Your task to perform on an android device: stop showing notifications on the lock screen Image 0: 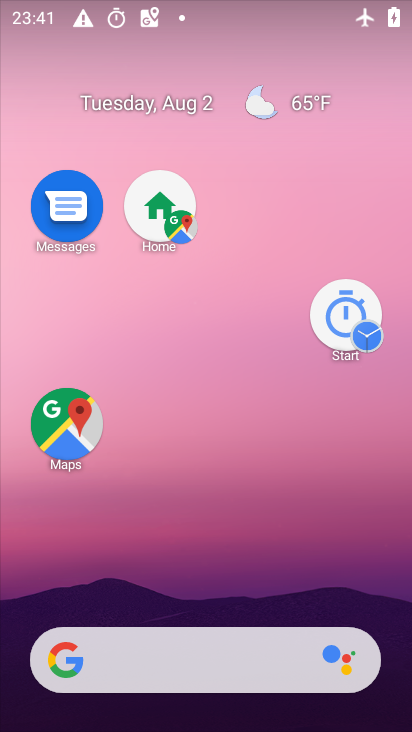
Step 0: drag from (205, 491) to (176, 78)
Your task to perform on an android device: stop showing notifications on the lock screen Image 1: 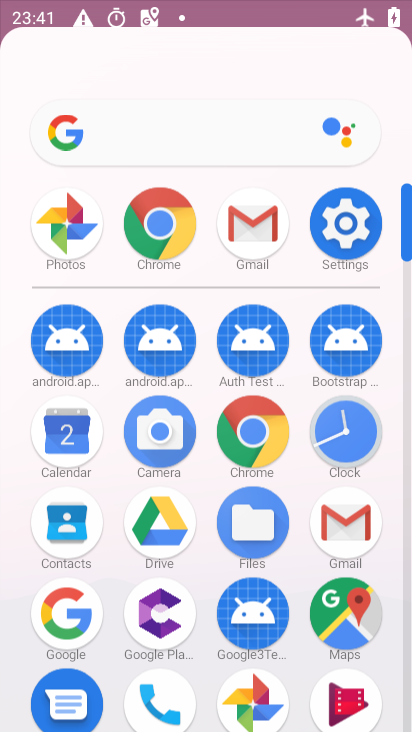
Step 1: drag from (134, 135) to (132, 49)
Your task to perform on an android device: stop showing notifications on the lock screen Image 2: 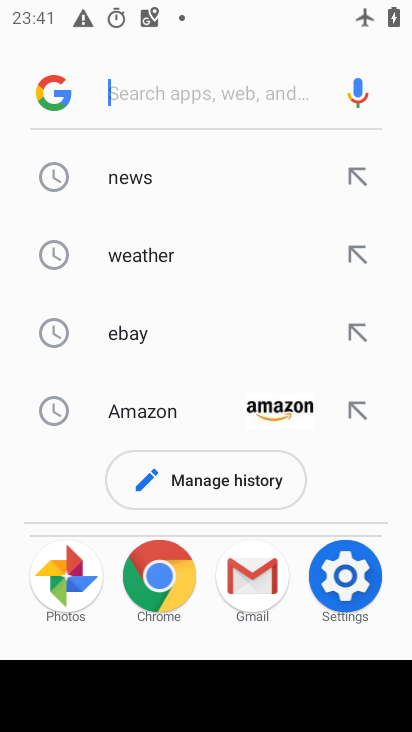
Step 2: press back button
Your task to perform on an android device: stop showing notifications on the lock screen Image 3: 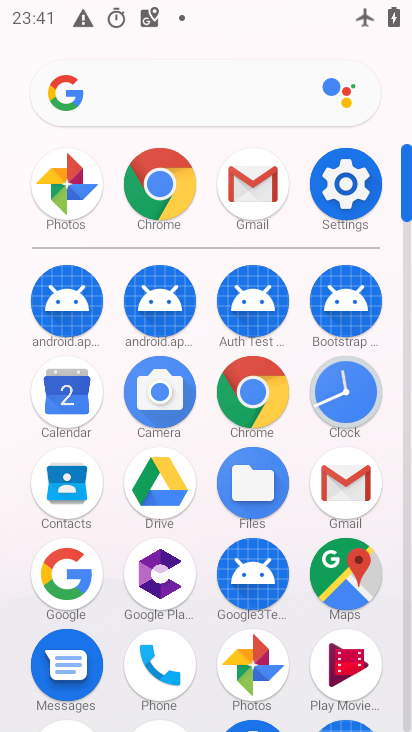
Step 3: click (336, 186)
Your task to perform on an android device: stop showing notifications on the lock screen Image 4: 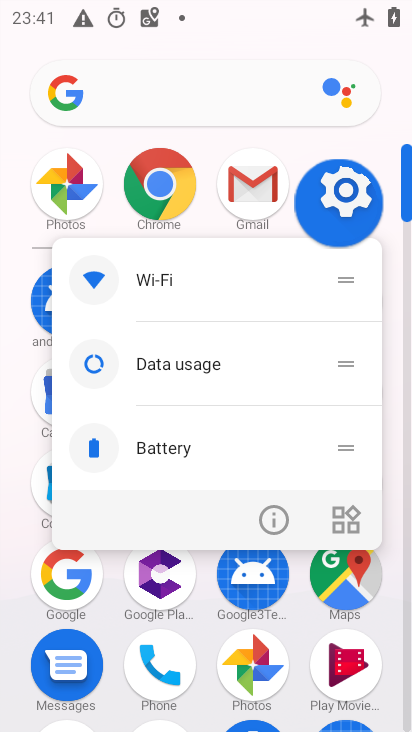
Step 4: click (324, 216)
Your task to perform on an android device: stop showing notifications on the lock screen Image 5: 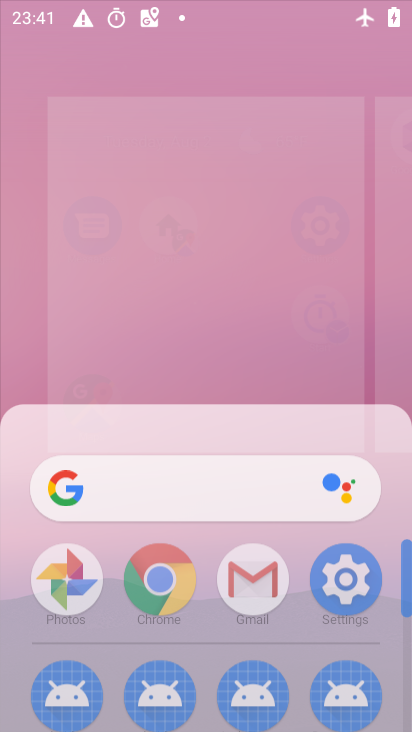
Step 5: click (328, 177)
Your task to perform on an android device: stop showing notifications on the lock screen Image 6: 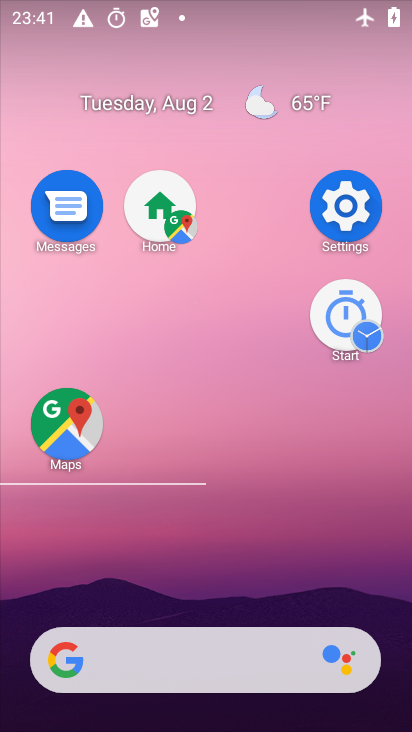
Step 6: click (334, 187)
Your task to perform on an android device: stop showing notifications on the lock screen Image 7: 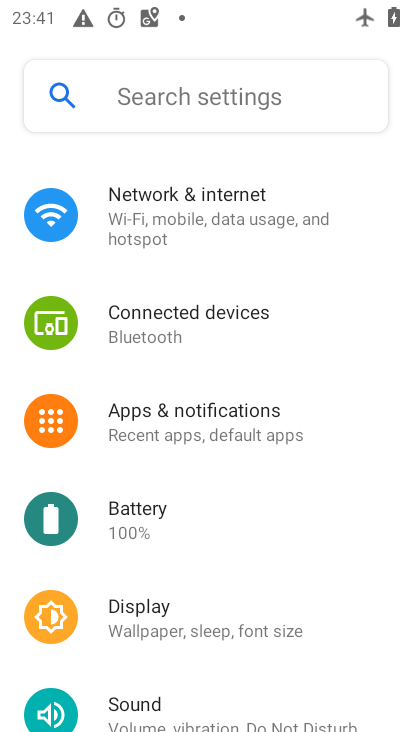
Step 7: drag from (152, 634) to (178, 373)
Your task to perform on an android device: stop showing notifications on the lock screen Image 8: 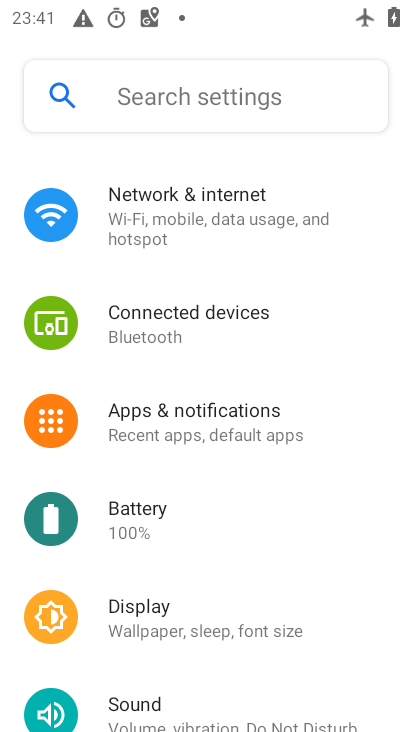
Step 8: drag from (228, 580) to (226, 317)
Your task to perform on an android device: stop showing notifications on the lock screen Image 9: 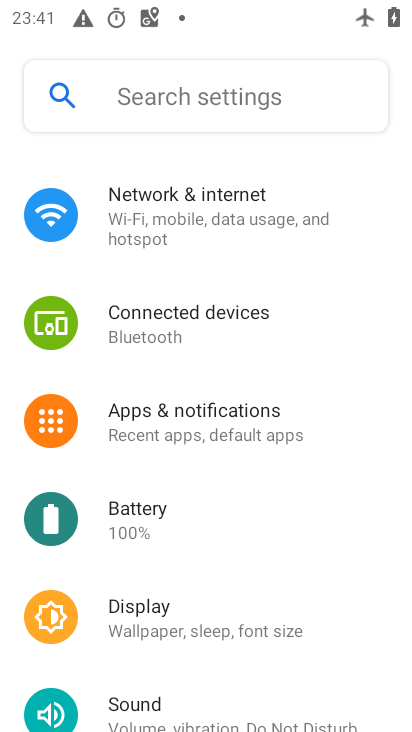
Step 9: click (197, 423)
Your task to perform on an android device: stop showing notifications on the lock screen Image 10: 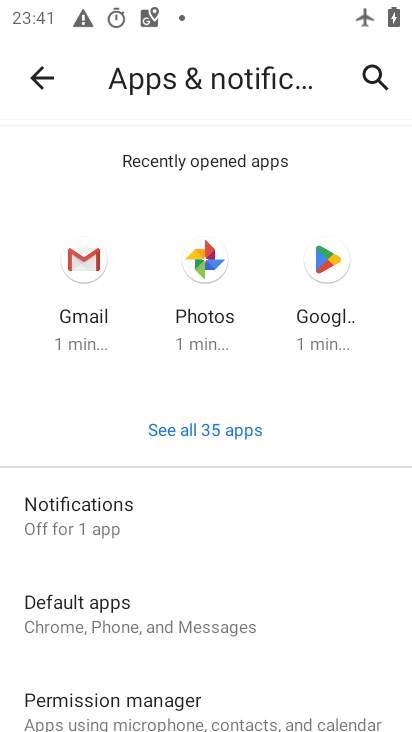
Step 10: click (47, 529)
Your task to perform on an android device: stop showing notifications on the lock screen Image 11: 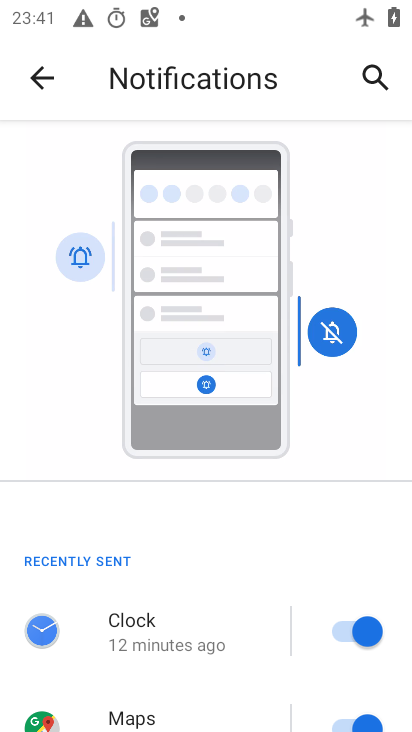
Step 11: drag from (130, 573) to (150, 223)
Your task to perform on an android device: stop showing notifications on the lock screen Image 12: 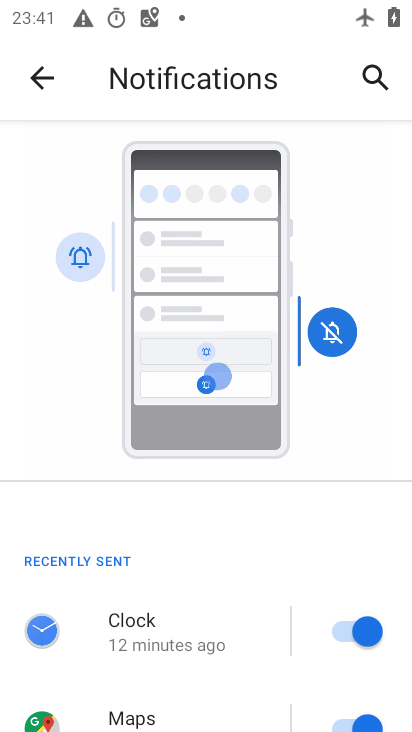
Step 12: drag from (190, 511) to (197, 349)
Your task to perform on an android device: stop showing notifications on the lock screen Image 13: 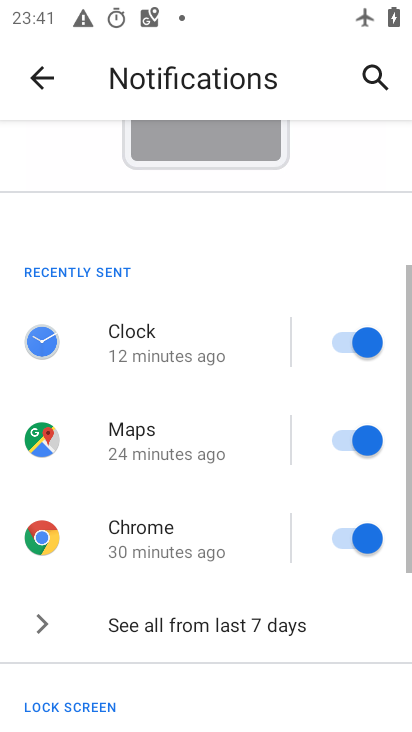
Step 13: click (255, 255)
Your task to perform on an android device: stop showing notifications on the lock screen Image 14: 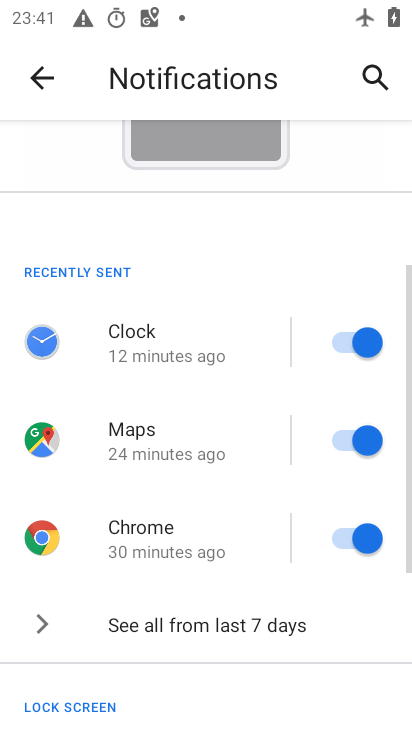
Step 14: drag from (183, 483) to (185, 260)
Your task to perform on an android device: stop showing notifications on the lock screen Image 15: 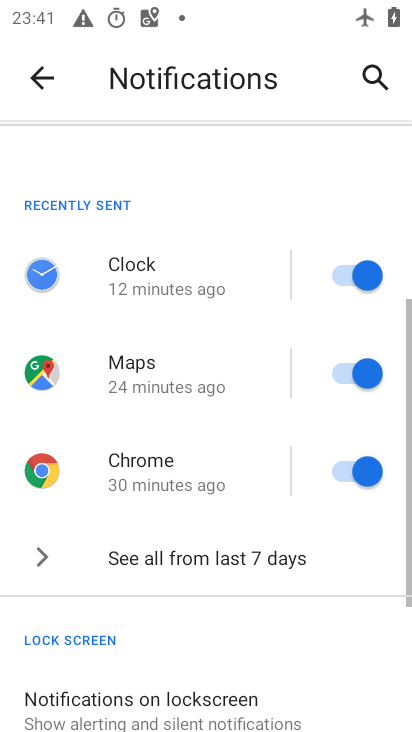
Step 15: drag from (184, 519) to (183, 199)
Your task to perform on an android device: stop showing notifications on the lock screen Image 16: 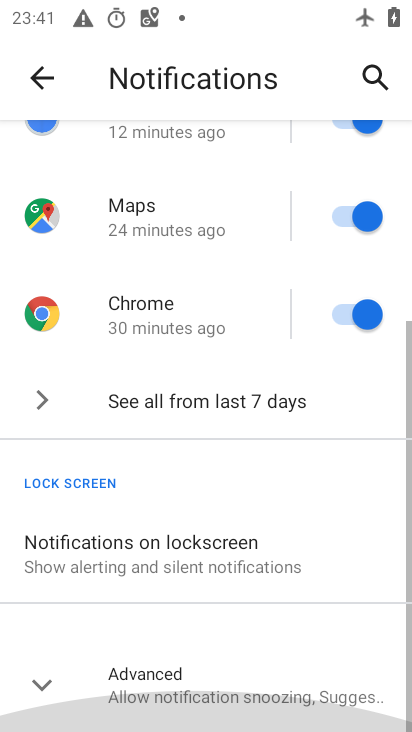
Step 16: drag from (142, 558) to (174, 261)
Your task to perform on an android device: stop showing notifications on the lock screen Image 17: 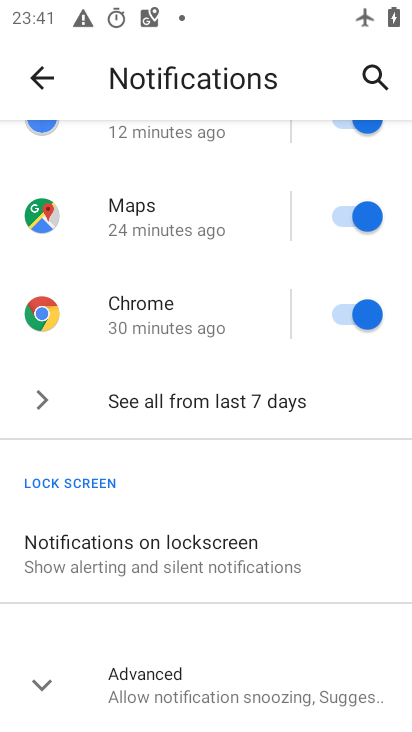
Step 17: click (122, 557)
Your task to perform on an android device: stop showing notifications on the lock screen Image 18: 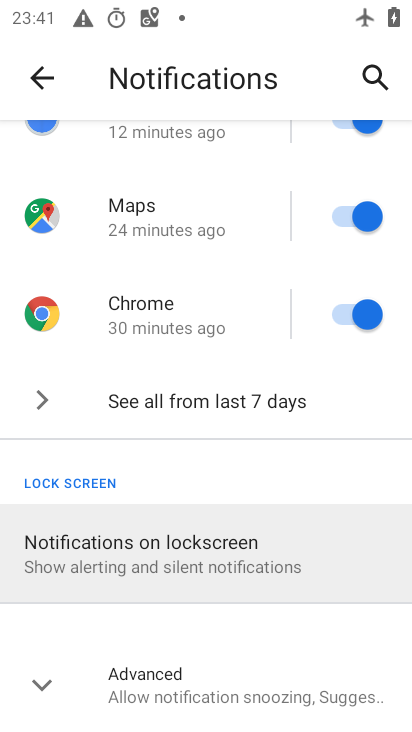
Step 18: click (123, 555)
Your task to perform on an android device: stop showing notifications on the lock screen Image 19: 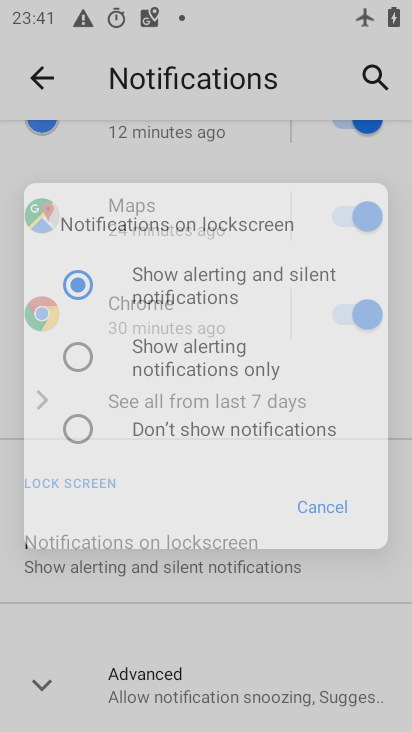
Step 19: click (124, 556)
Your task to perform on an android device: stop showing notifications on the lock screen Image 20: 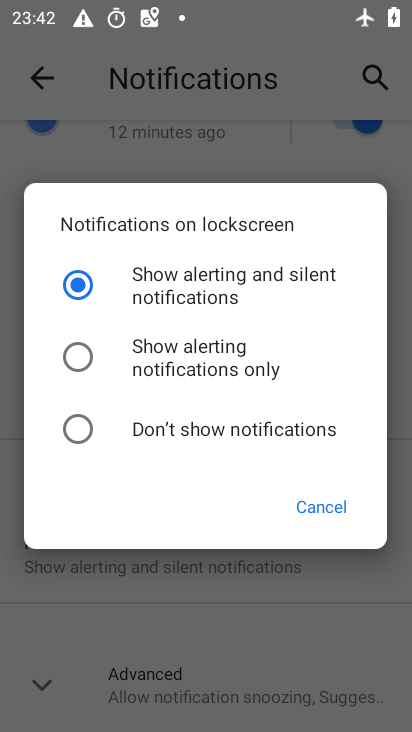
Step 20: click (81, 423)
Your task to perform on an android device: stop showing notifications on the lock screen Image 21: 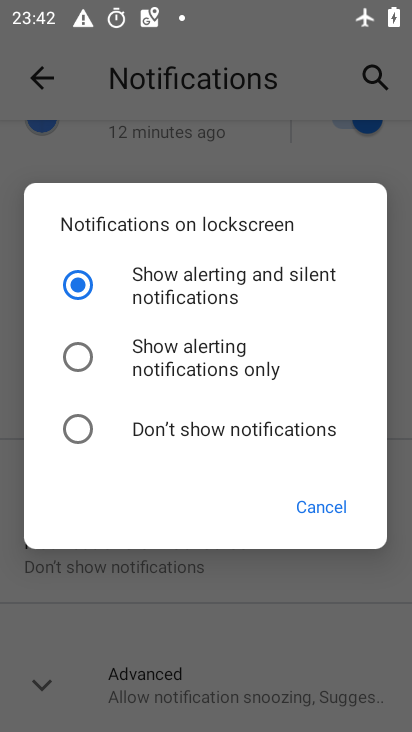
Step 21: click (81, 423)
Your task to perform on an android device: stop showing notifications on the lock screen Image 22: 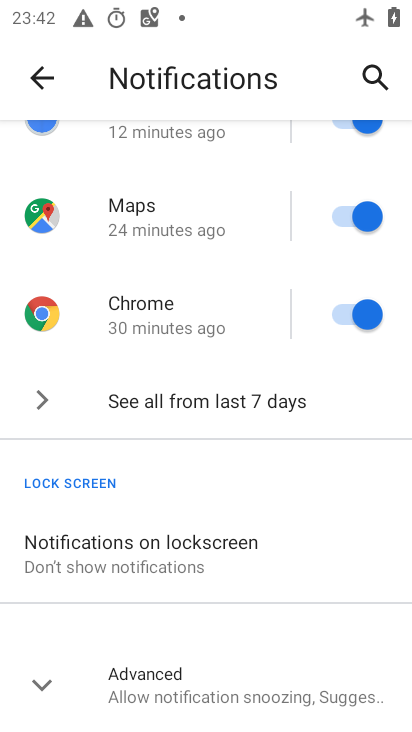
Step 22: task complete